Your task to perform on an android device: Go to calendar. Show me events next week Image 0: 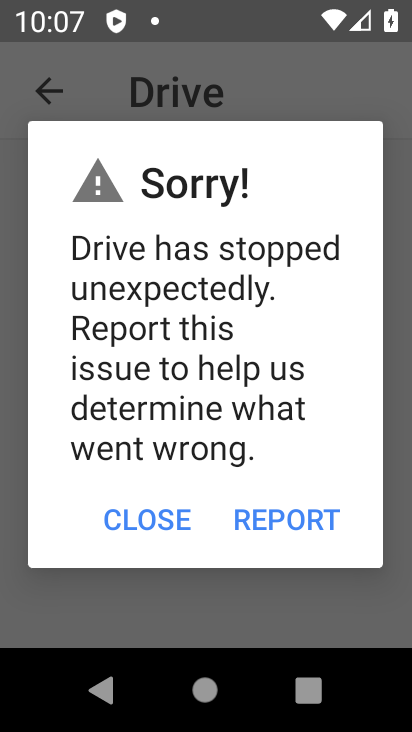
Step 0: press home button
Your task to perform on an android device: Go to calendar. Show me events next week Image 1: 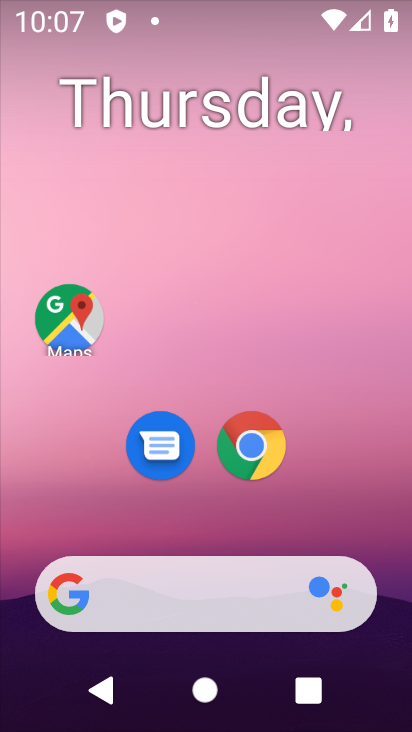
Step 1: drag from (245, 621) to (276, 179)
Your task to perform on an android device: Go to calendar. Show me events next week Image 2: 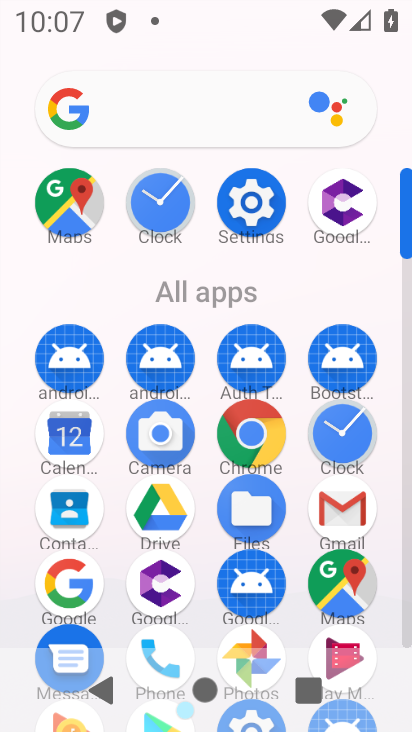
Step 2: click (66, 417)
Your task to perform on an android device: Go to calendar. Show me events next week Image 3: 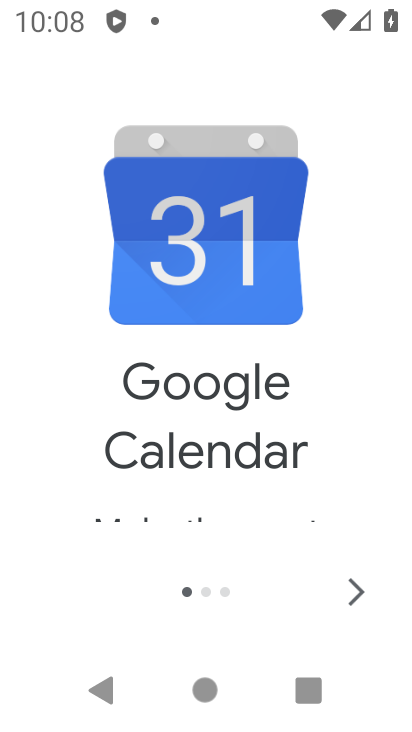
Step 3: click (350, 580)
Your task to perform on an android device: Go to calendar. Show me events next week Image 4: 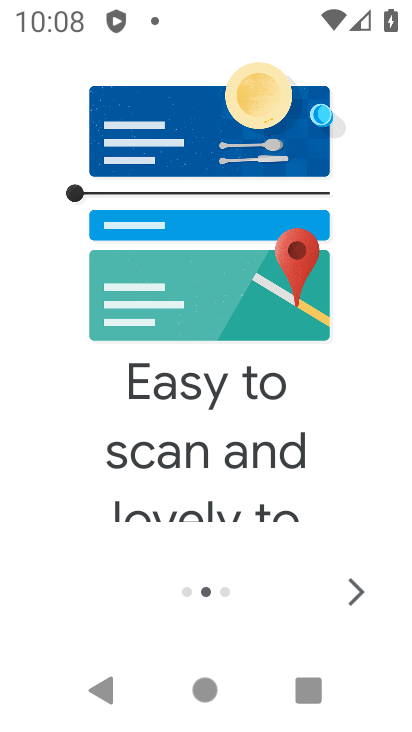
Step 4: click (344, 576)
Your task to perform on an android device: Go to calendar. Show me events next week Image 5: 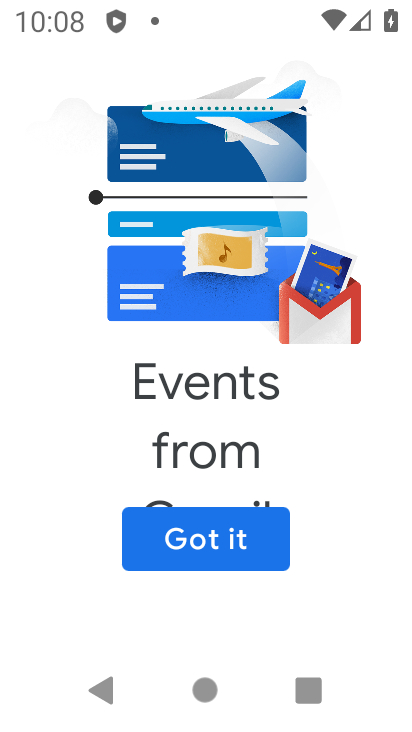
Step 5: click (190, 529)
Your task to perform on an android device: Go to calendar. Show me events next week Image 6: 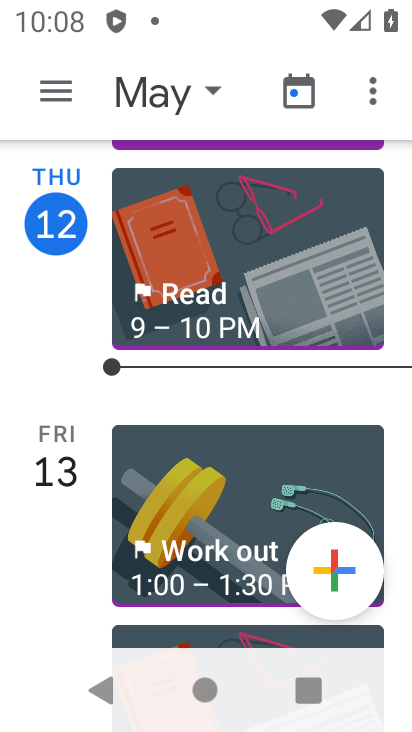
Step 6: click (79, 91)
Your task to perform on an android device: Go to calendar. Show me events next week Image 7: 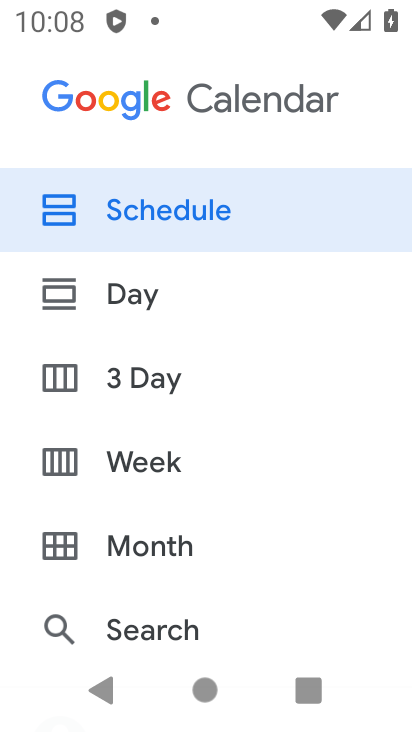
Step 7: click (160, 450)
Your task to perform on an android device: Go to calendar. Show me events next week Image 8: 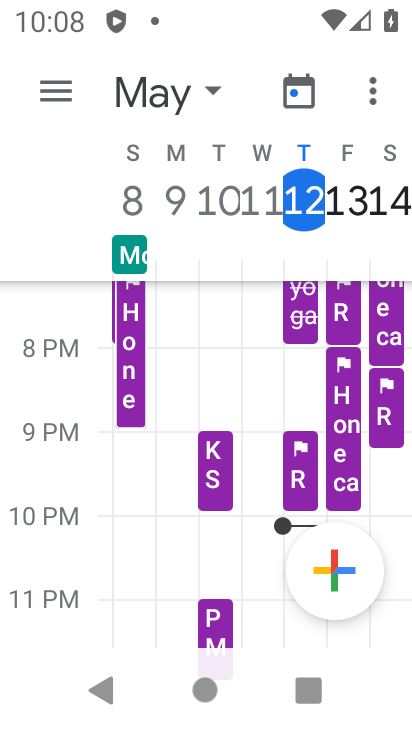
Step 8: drag from (344, 196) to (95, 268)
Your task to perform on an android device: Go to calendar. Show me events next week Image 9: 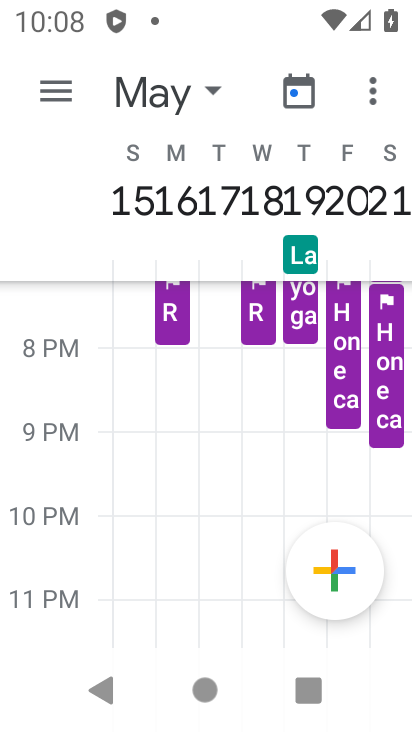
Step 9: click (181, 198)
Your task to perform on an android device: Go to calendar. Show me events next week Image 10: 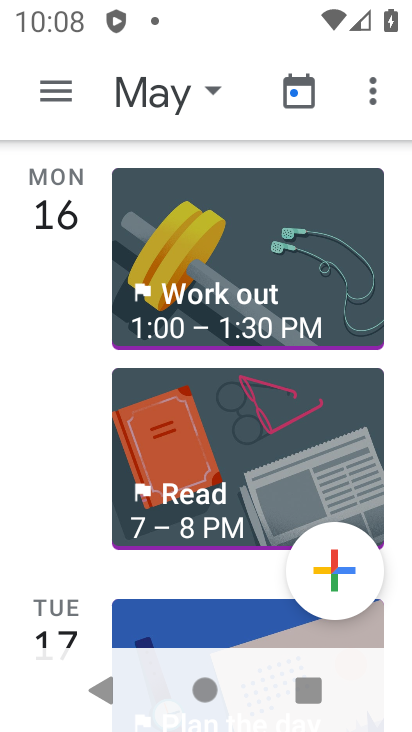
Step 10: task complete